Your task to perform on an android device: delete the emails in spam in the gmail app Image 0: 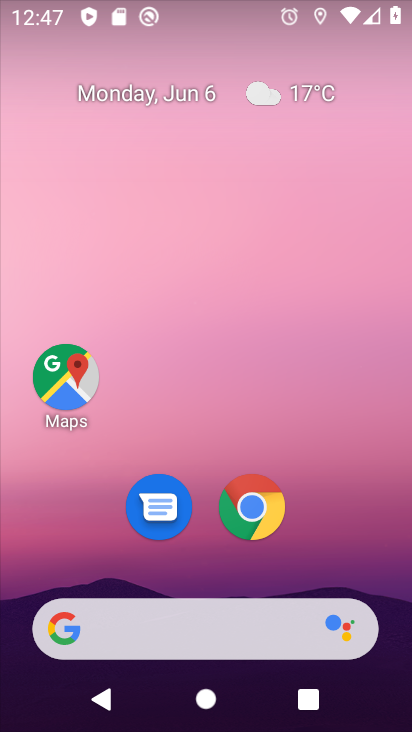
Step 0: drag from (297, 377) to (276, 0)
Your task to perform on an android device: delete the emails in spam in the gmail app Image 1: 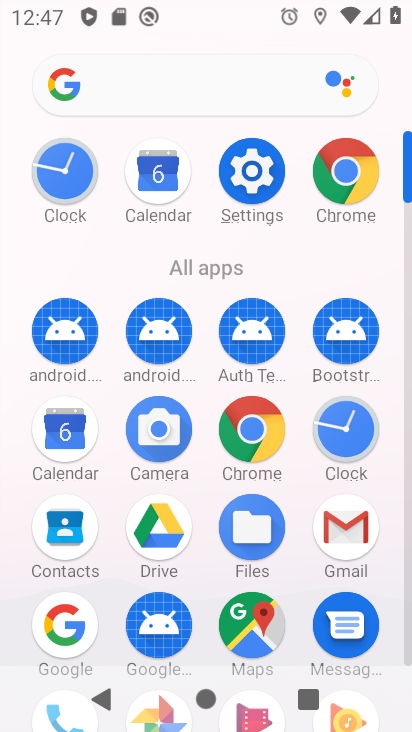
Step 1: click (337, 505)
Your task to perform on an android device: delete the emails in spam in the gmail app Image 2: 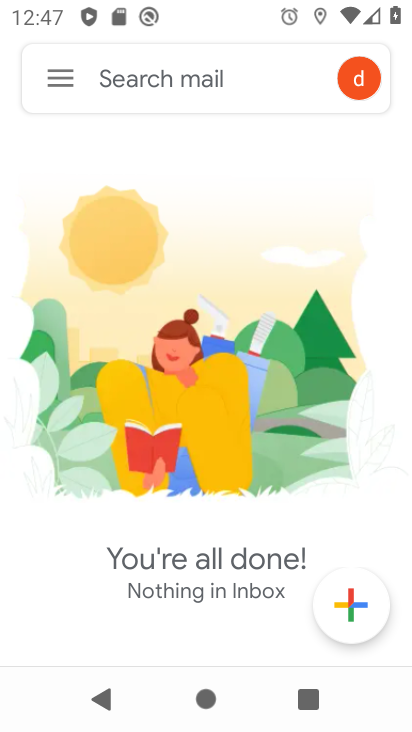
Step 2: click (66, 71)
Your task to perform on an android device: delete the emails in spam in the gmail app Image 3: 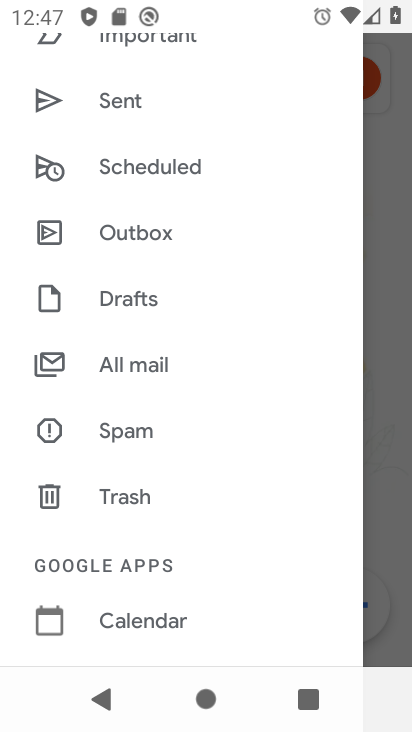
Step 3: click (128, 434)
Your task to perform on an android device: delete the emails in spam in the gmail app Image 4: 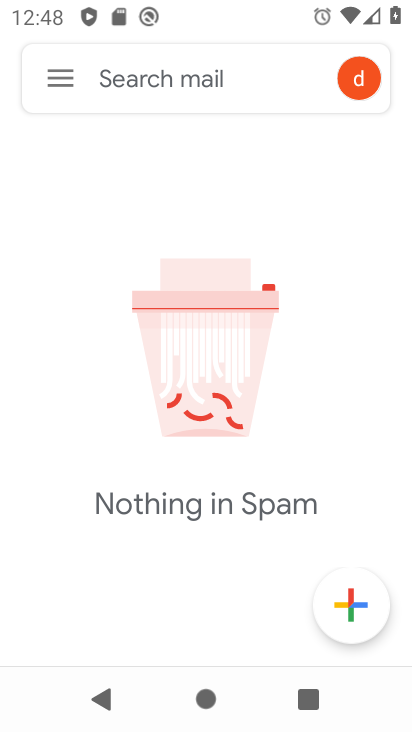
Step 4: task complete